Your task to perform on an android device: open app "Indeed Job Search" (install if not already installed) and go to login screen Image 0: 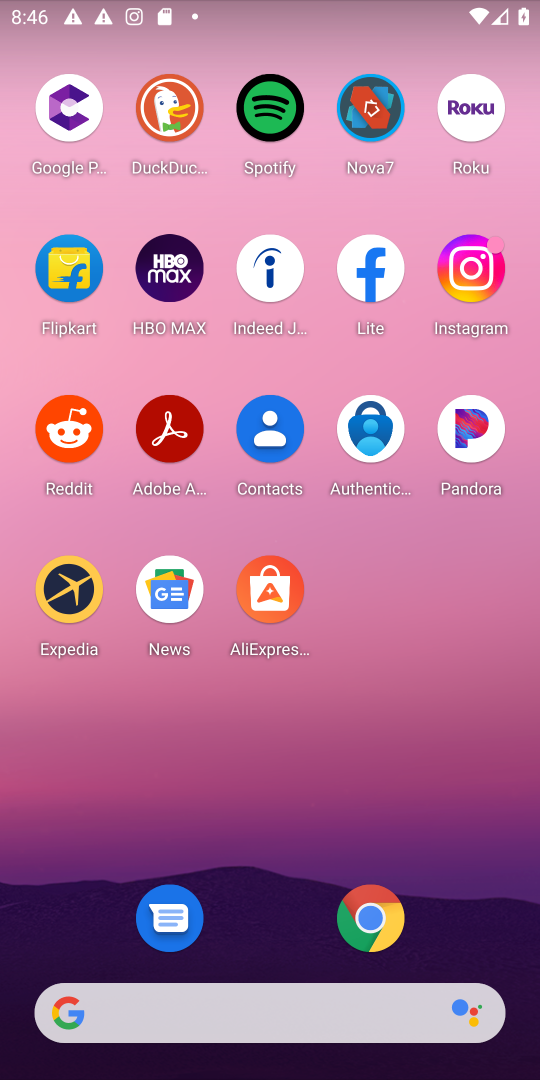
Step 0: press home button
Your task to perform on an android device: open app "Indeed Job Search" (install if not already installed) and go to login screen Image 1: 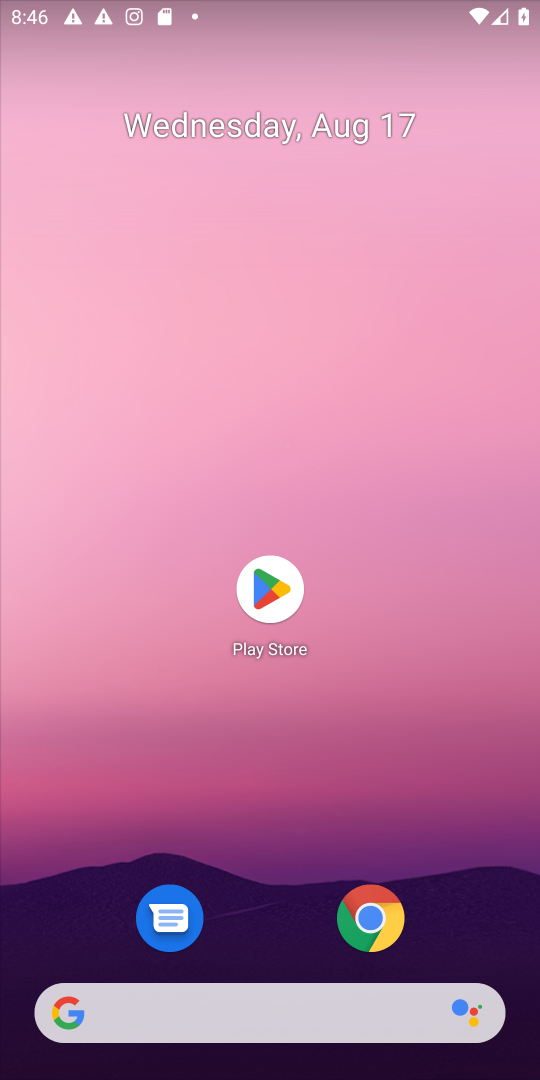
Step 1: click (265, 586)
Your task to perform on an android device: open app "Indeed Job Search" (install if not already installed) and go to login screen Image 2: 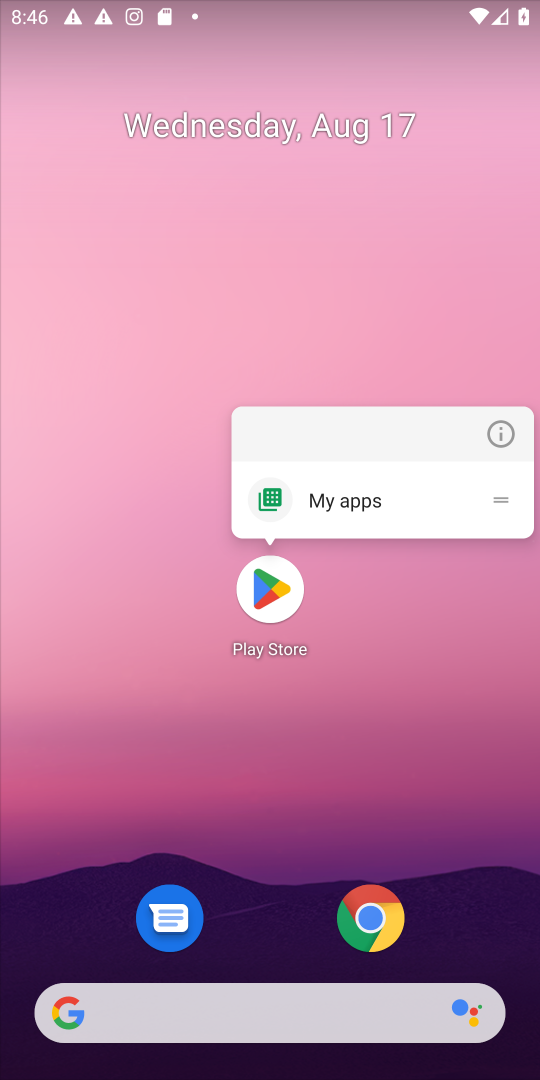
Step 2: click (260, 592)
Your task to perform on an android device: open app "Indeed Job Search" (install if not already installed) and go to login screen Image 3: 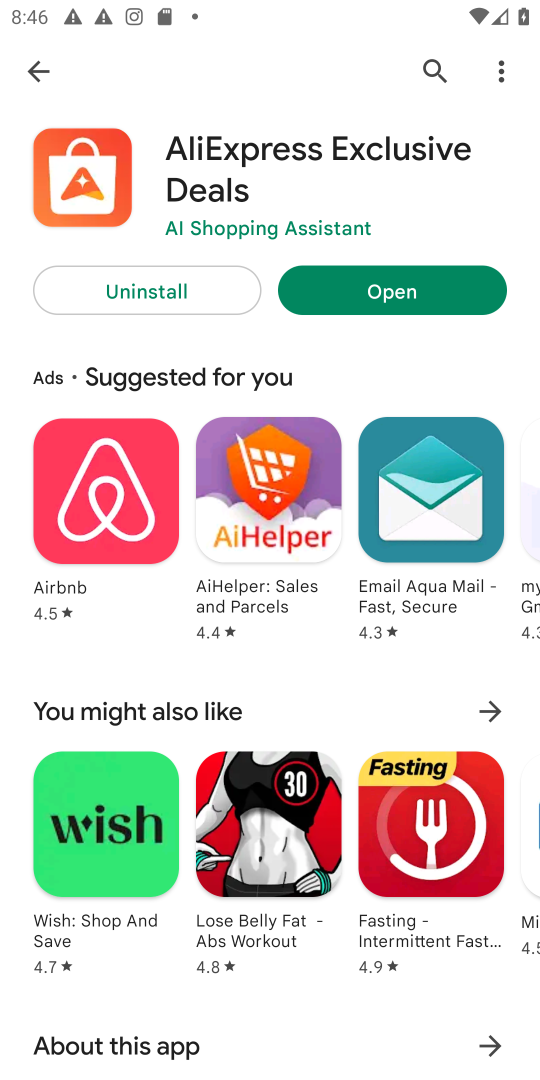
Step 3: click (427, 63)
Your task to perform on an android device: open app "Indeed Job Search" (install if not already installed) and go to login screen Image 4: 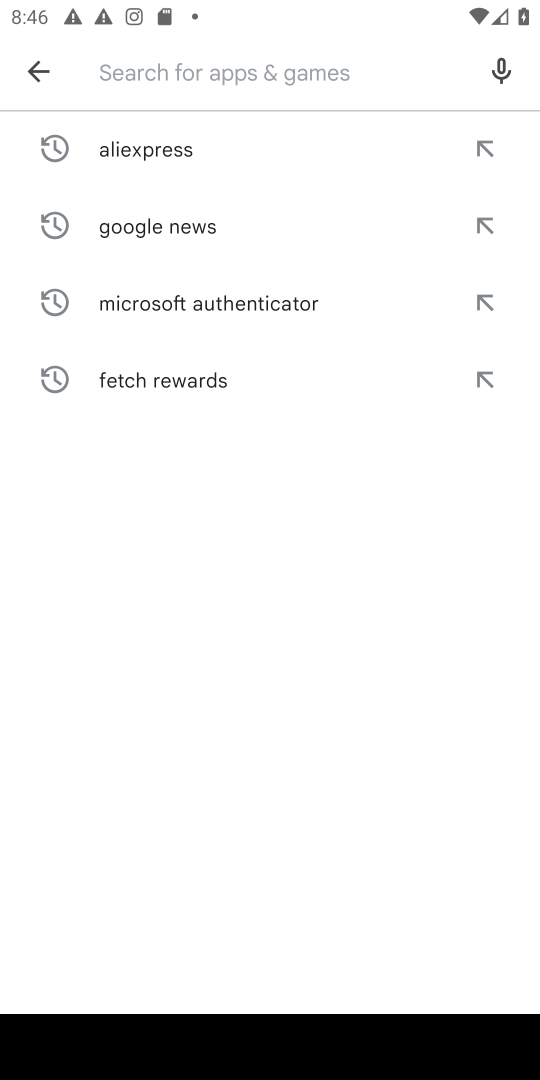
Step 4: type "Indeed Job Search"
Your task to perform on an android device: open app "Indeed Job Search" (install if not already installed) and go to login screen Image 5: 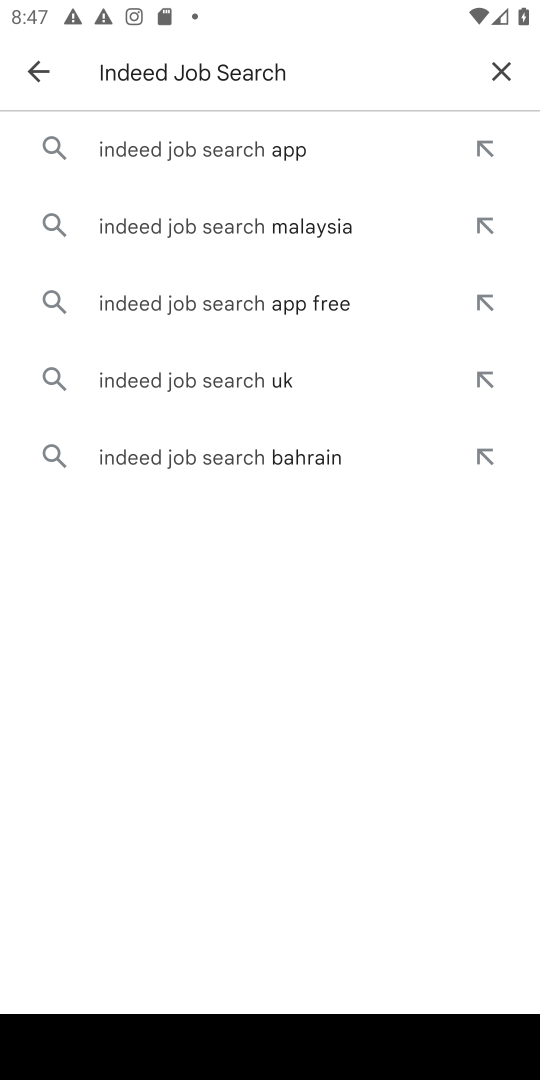
Step 5: click (186, 146)
Your task to perform on an android device: open app "Indeed Job Search" (install if not already installed) and go to login screen Image 6: 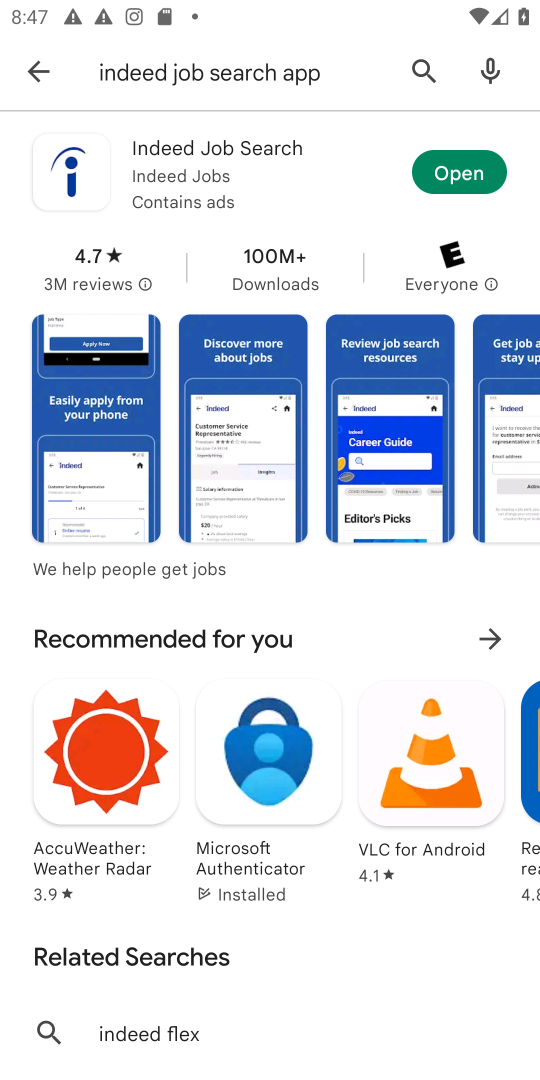
Step 6: click (455, 172)
Your task to perform on an android device: open app "Indeed Job Search" (install if not already installed) and go to login screen Image 7: 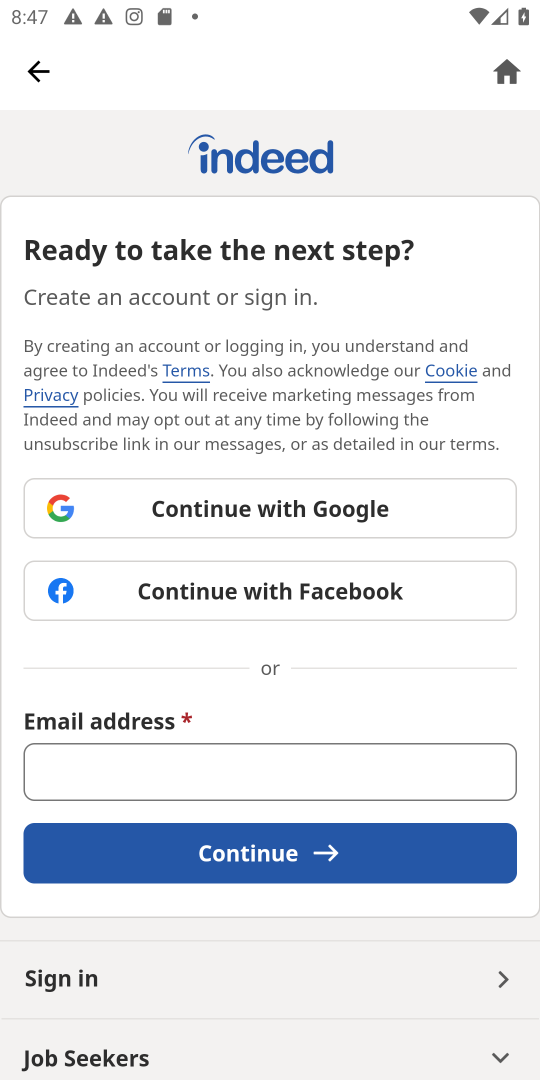
Step 7: task complete